Your task to perform on an android device: refresh tabs in the chrome app Image 0: 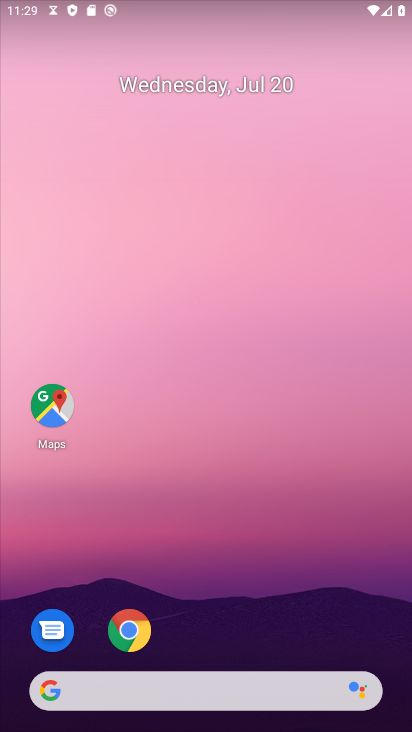
Step 0: click (122, 637)
Your task to perform on an android device: refresh tabs in the chrome app Image 1: 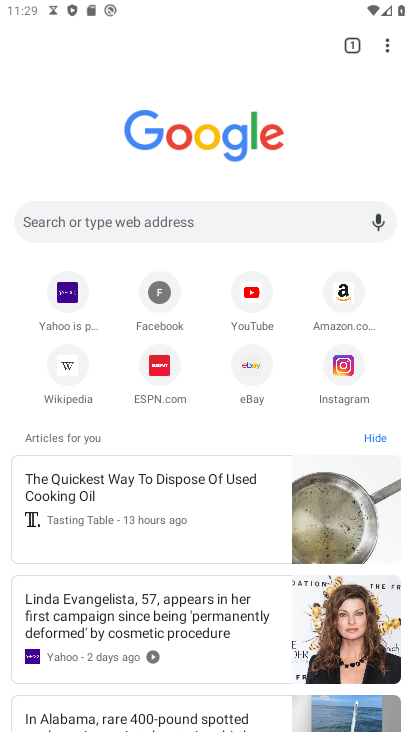
Step 1: click (385, 44)
Your task to perform on an android device: refresh tabs in the chrome app Image 2: 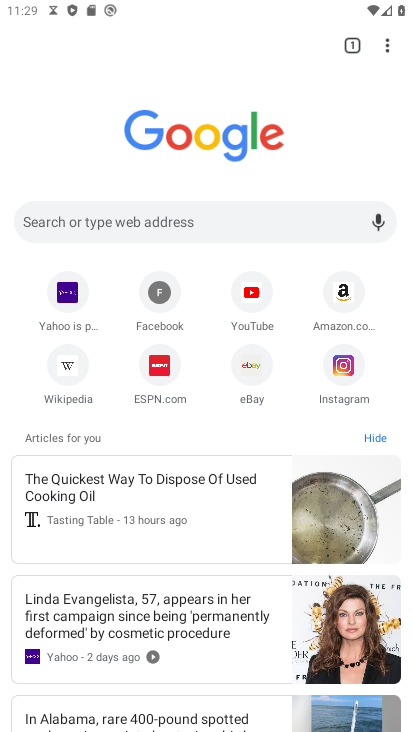
Step 2: click (384, 48)
Your task to perform on an android device: refresh tabs in the chrome app Image 3: 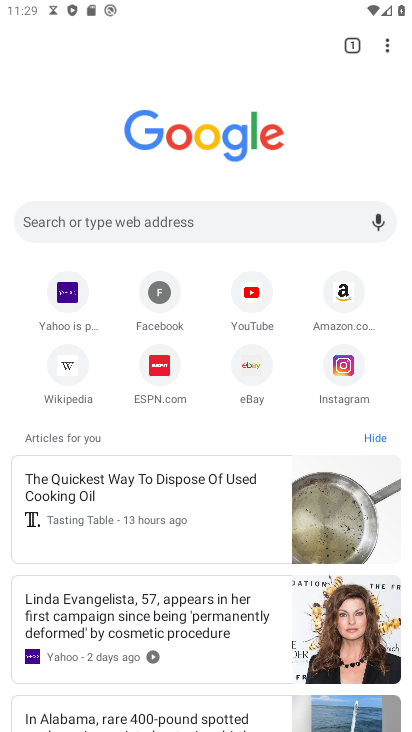
Step 3: click (384, 48)
Your task to perform on an android device: refresh tabs in the chrome app Image 4: 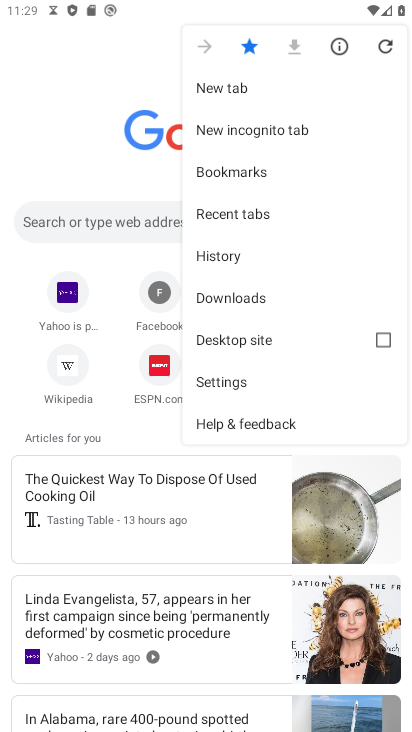
Step 4: click (380, 47)
Your task to perform on an android device: refresh tabs in the chrome app Image 5: 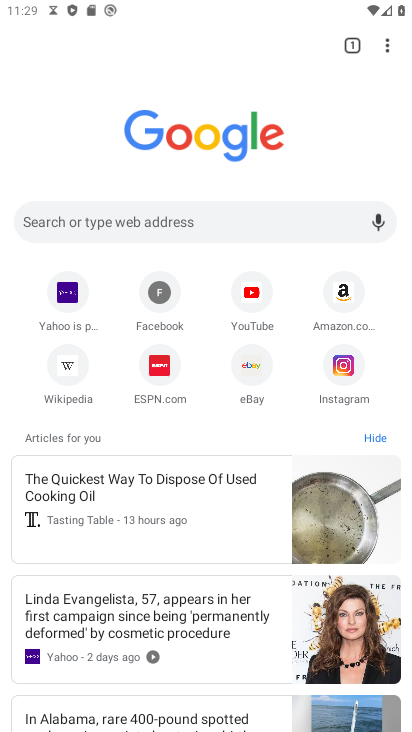
Step 5: task complete